Your task to perform on an android device: set default search engine in the chrome app Image 0: 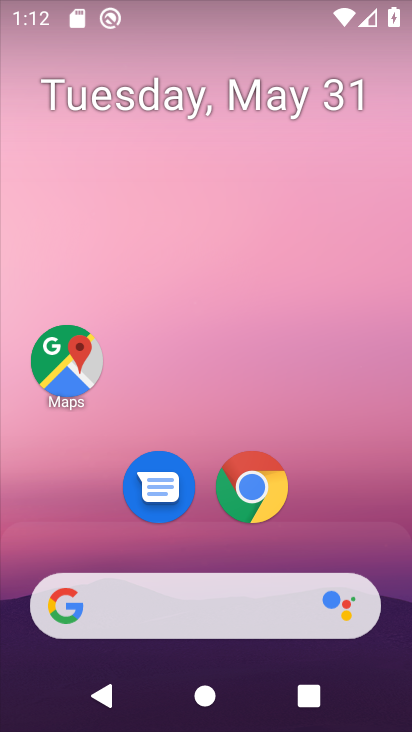
Step 0: click (267, 494)
Your task to perform on an android device: set default search engine in the chrome app Image 1: 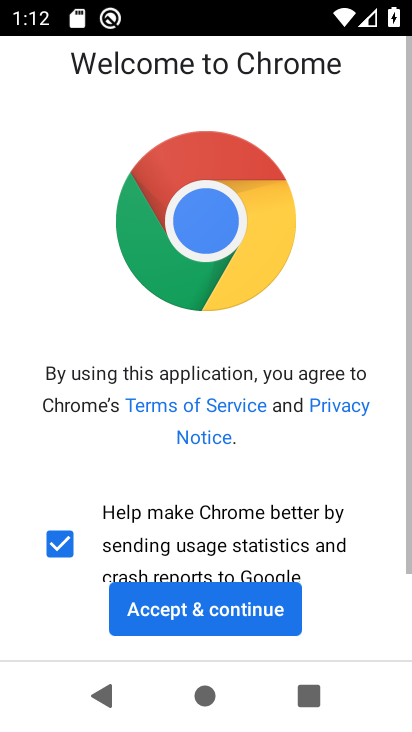
Step 1: click (253, 613)
Your task to perform on an android device: set default search engine in the chrome app Image 2: 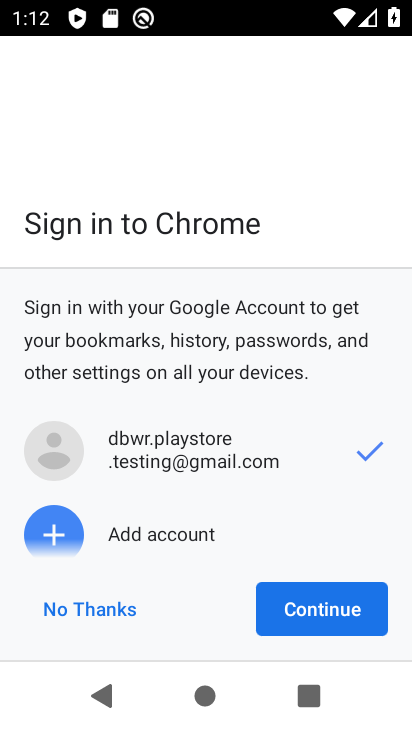
Step 2: click (355, 608)
Your task to perform on an android device: set default search engine in the chrome app Image 3: 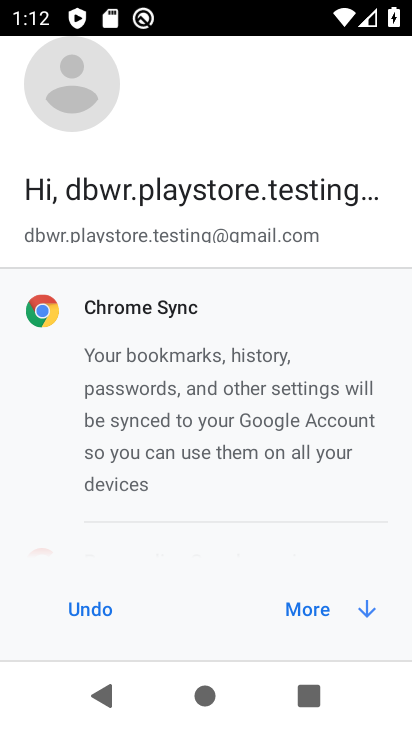
Step 3: click (346, 611)
Your task to perform on an android device: set default search engine in the chrome app Image 4: 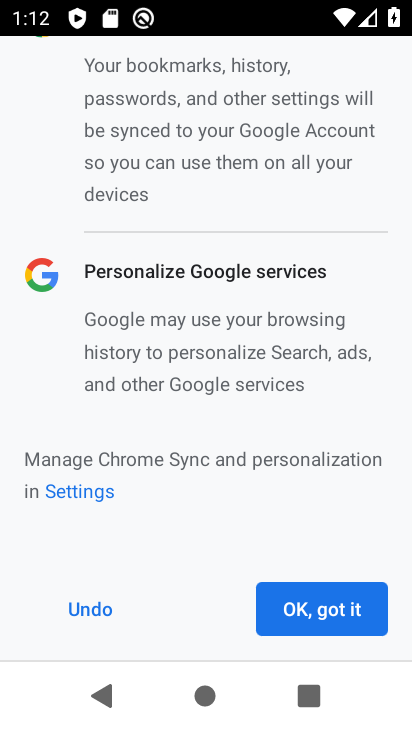
Step 4: click (346, 611)
Your task to perform on an android device: set default search engine in the chrome app Image 5: 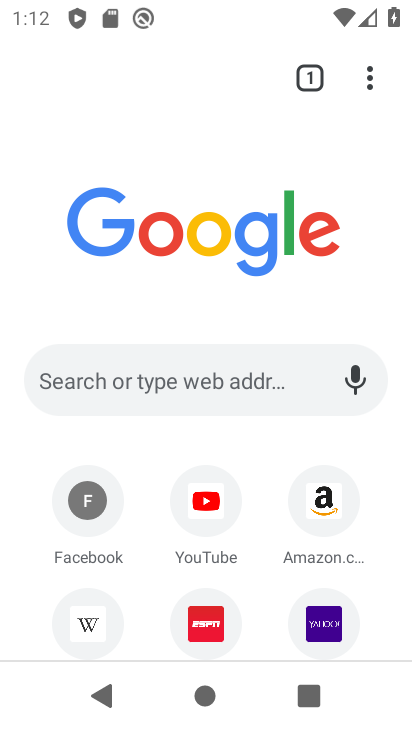
Step 5: drag from (379, 83) to (176, 561)
Your task to perform on an android device: set default search engine in the chrome app Image 6: 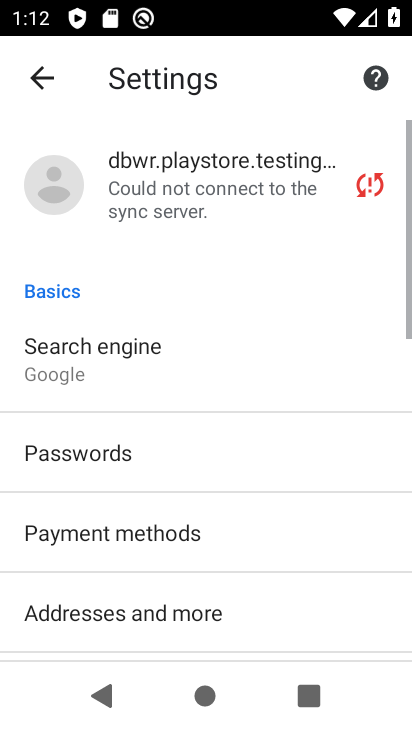
Step 6: click (139, 361)
Your task to perform on an android device: set default search engine in the chrome app Image 7: 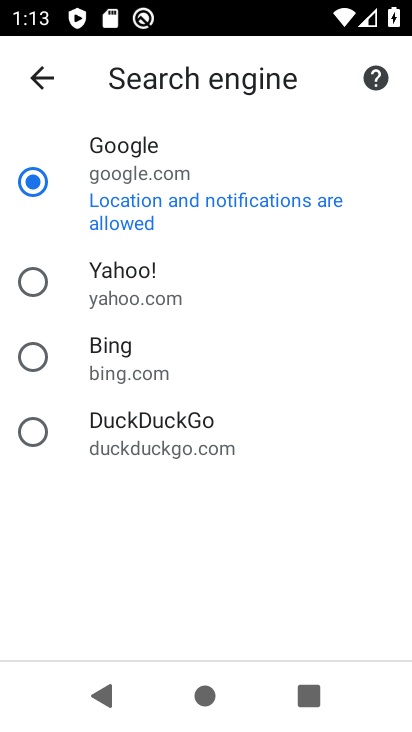
Step 7: click (48, 304)
Your task to perform on an android device: set default search engine in the chrome app Image 8: 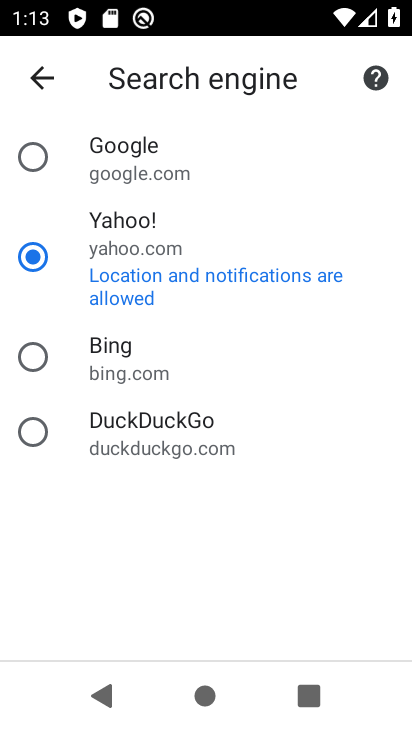
Step 8: click (147, 179)
Your task to perform on an android device: set default search engine in the chrome app Image 9: 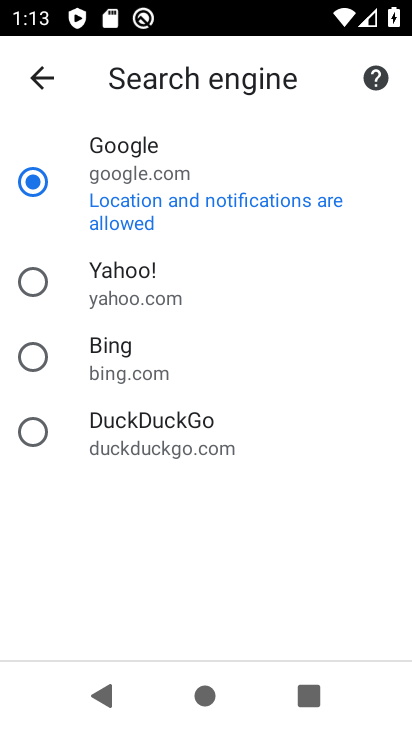
Step 9: task complete